Your task to perform on an android device: refresh tabs in the chrome app Image 0: 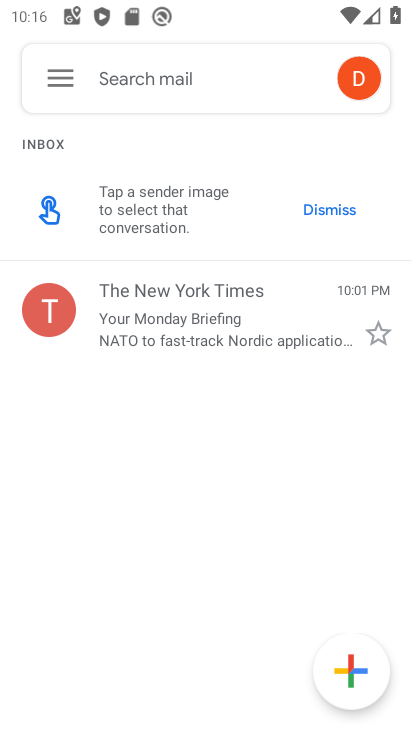
Step 0: press home button
Your task to perform on an android device: refresh tabs in the chrome app Image 1: 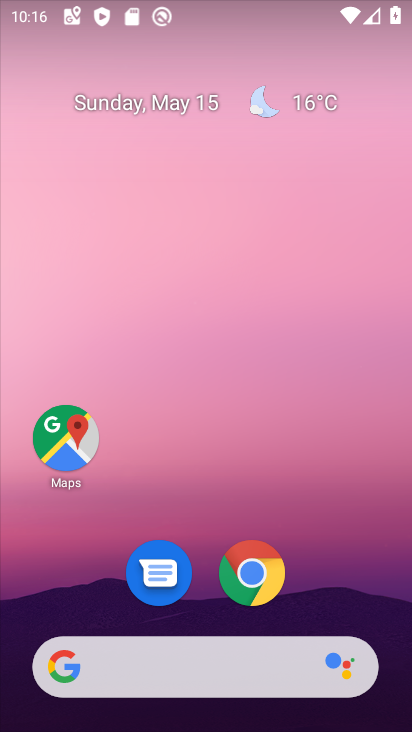
Step 1: click (251, 559)
Your task to perform on an android device: refresh tabs in the chrome app Image 2: 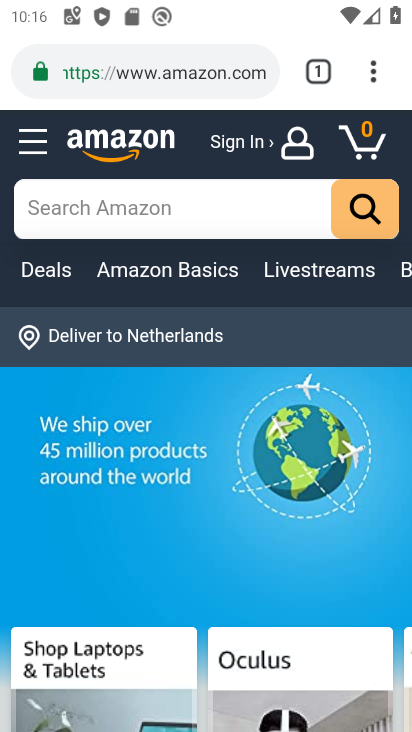
Step 2: click (386, 77)
Your task to perform on an android device: refresh tabs in the chrome app Image 3: 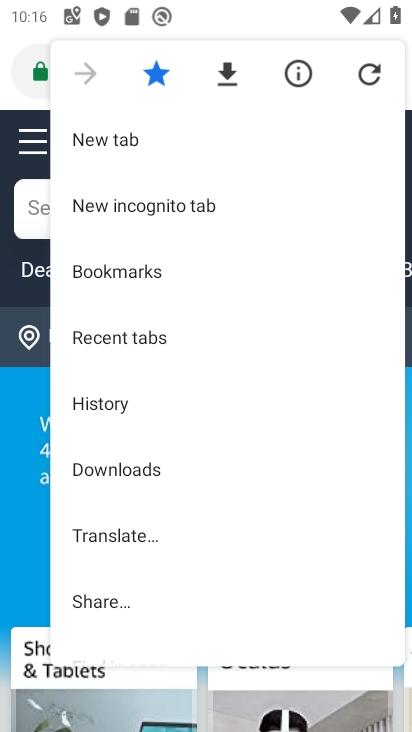
Step 3: click (374, 68)
Your task to perform on an android device: refresh tabs in the chrome app Image 4: 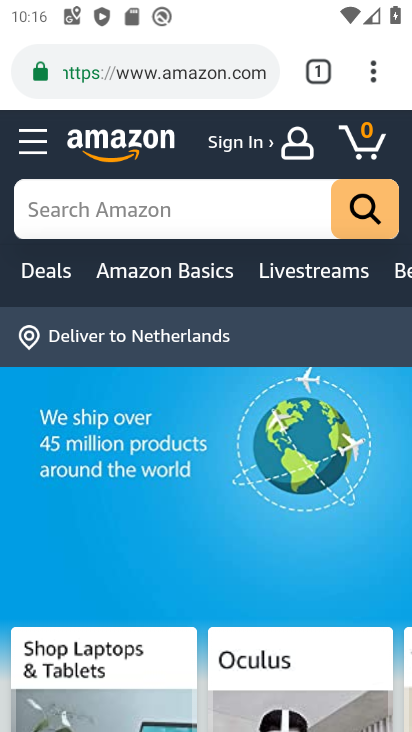
Step 4: task complete